Your task to perform on an android device: Is it going to rain today? Image 0: 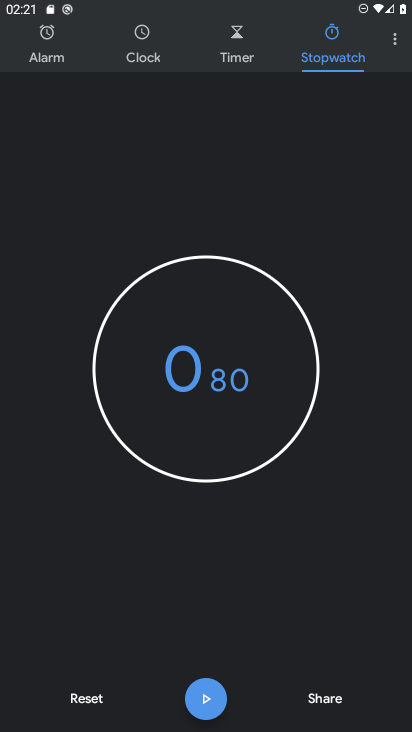
Step 0: press home button
Your task to perform on an android device: Is it going to rain today? Image 1: 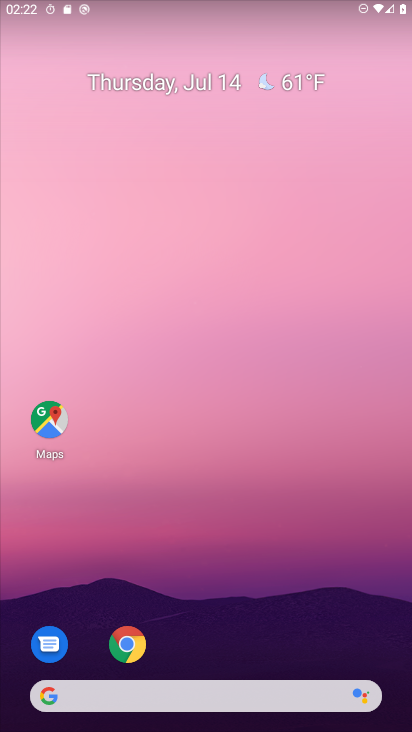
Step 1: drag from (305, 630) to (211, 120)
Your task to perform on an android device: Is it going to rain today? Image 2: 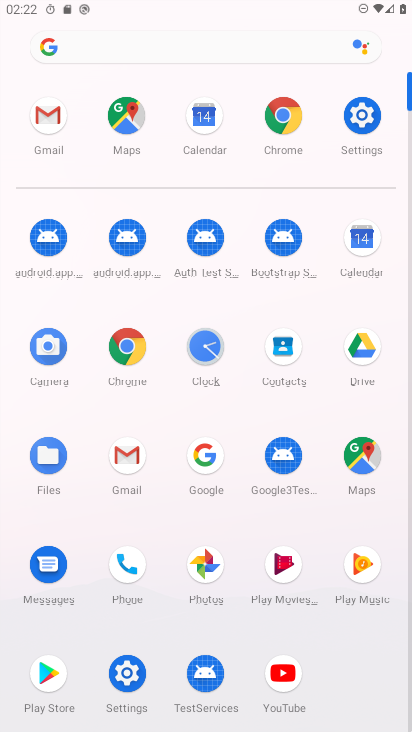
Step 2: press home button
Your task to perform on an android device: Is it going to rain today? Image 3: 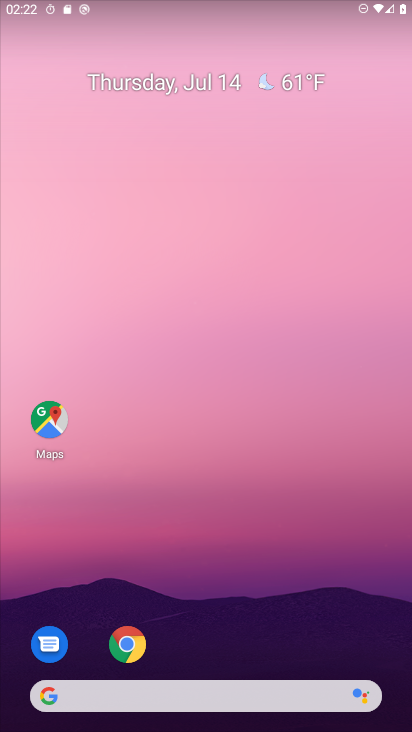
Step 3: click (295, 85)
Your task to perform on an android device: Is it going to rain today? Image 4: 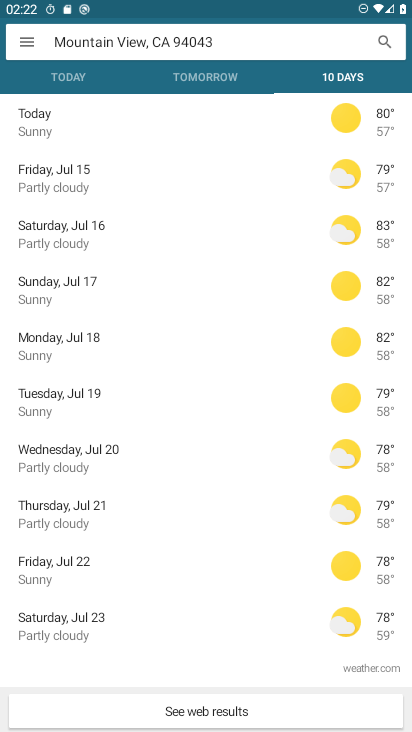
Step 4: click (125, 114)
Your task to perform on an android device: Is it going to rain today? Image 5: 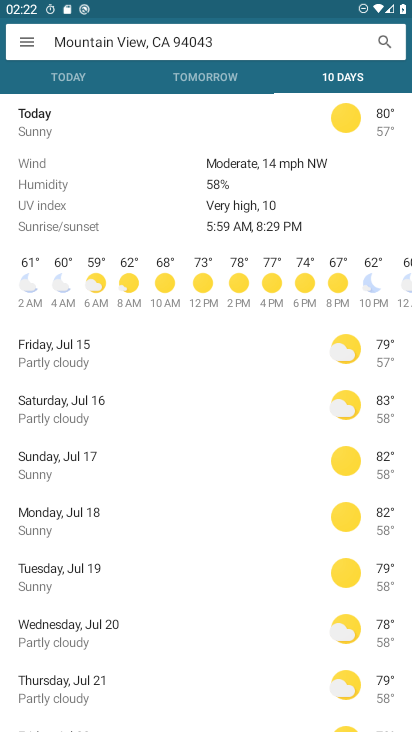
Step 5: task complete